Your task to perform on an android device: What's the news in India? Image 0: 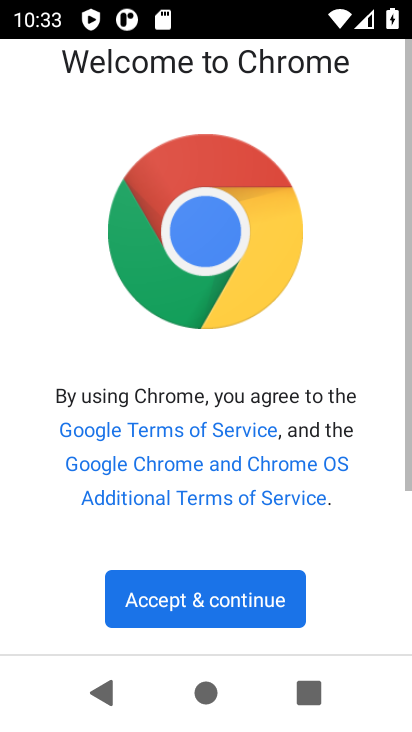
Step 0: click (66, 582)
Your task to perform on an android device: What's the news in India? Image 1: 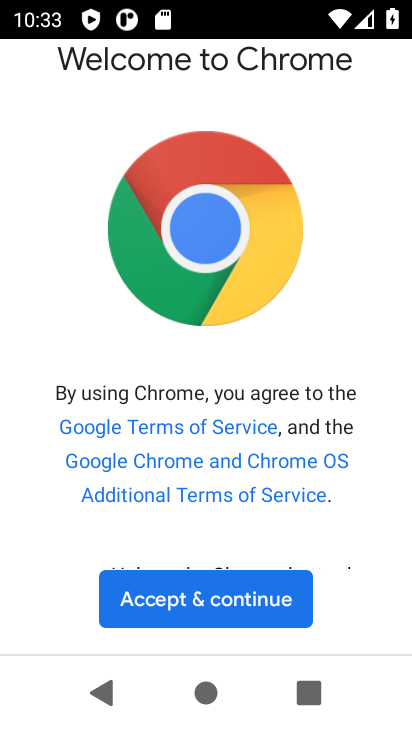
Step 1: press home button
Your task to perform on an android device: What's the news in India? Image 2: 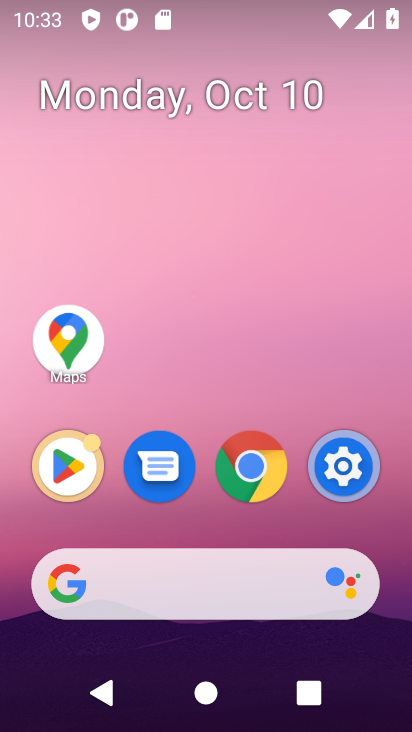
Step 2: click (63, 592)
Your task to perform on an android device: What's the news in India? Image 3: 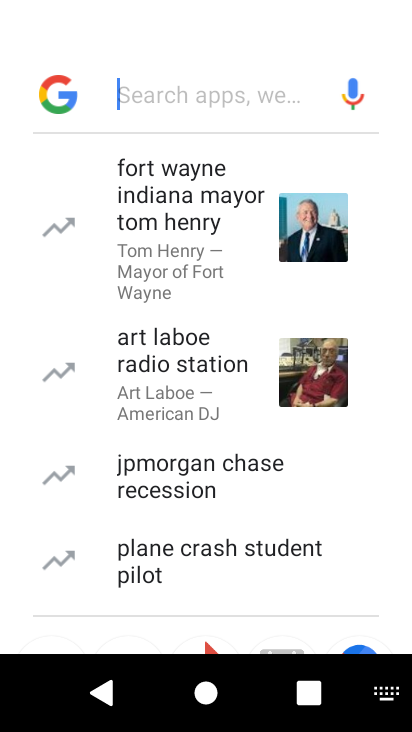
Step 3: type "news in India"
Your task to perform on an android device: What's the news in India? Image 4: 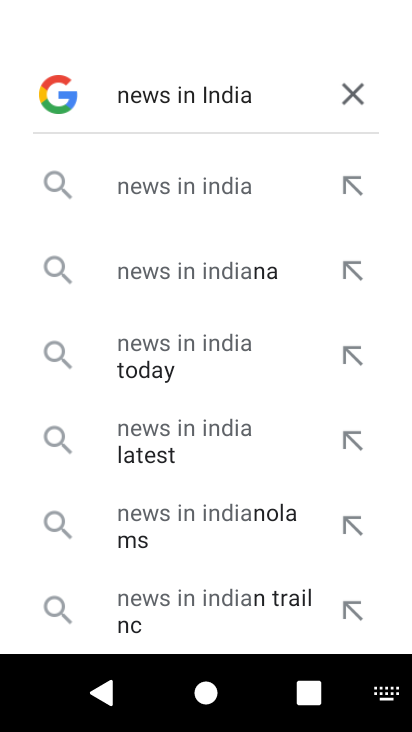
Step 4: press enter
Your task to perform on an android device: What's the news in India? Image 5: 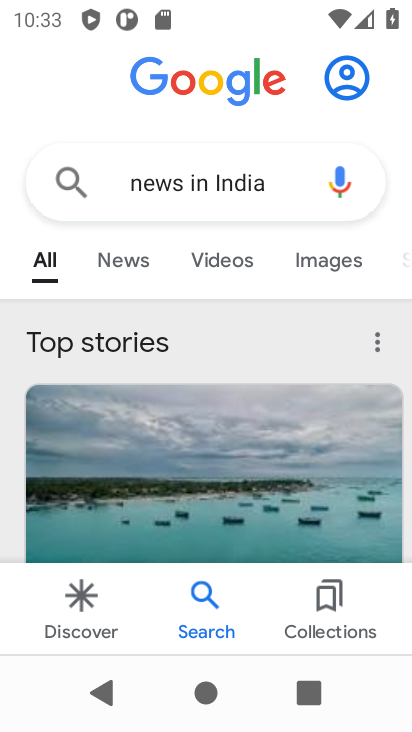
Step 5: task complete